Your task to perform on an android device: Set an alarm for 8pm Image 0: 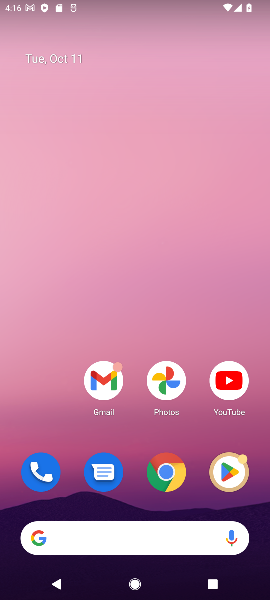
Step 0: drag from (134, 453) to (119, 156)
Your task to perform on an android device: Set an alarm for 8pm Image 1: 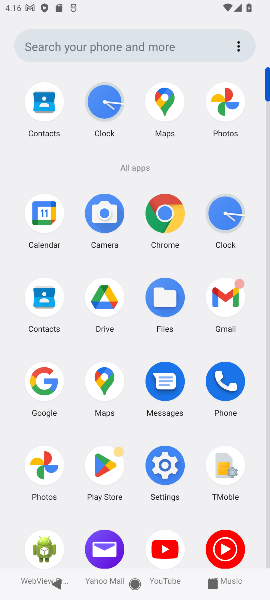
Step 1: click (230, 211)
Your task to perform on an android device: Set an alarm for 8pm Image 2: 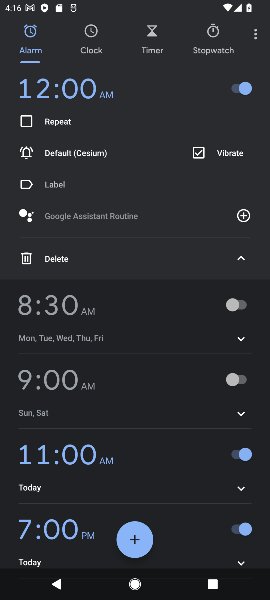
Step 2: click (141, 540)
Your task to perform on an android device: Set an alarm for 8pm Image 3: 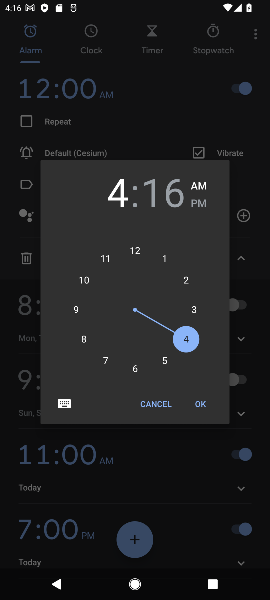
Step 3: click (88, 339)
Your task to perform on an android device: Set an alarm for 8pm Image 4: 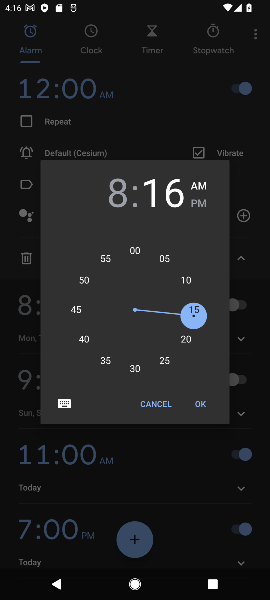
Step 4: click (132, 248)
Your task to perform on an android device: Set an alarm for 8pm Image 5: 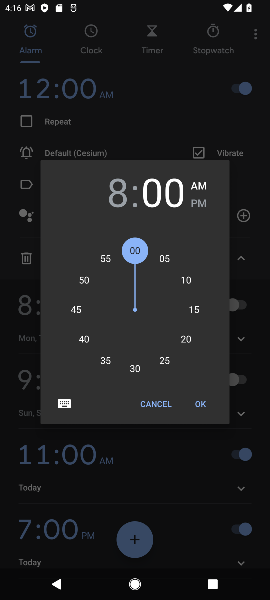
Step 5: click (200, 408)
Your task to perform on an android device: Set an alarm for 8pm Image 6: 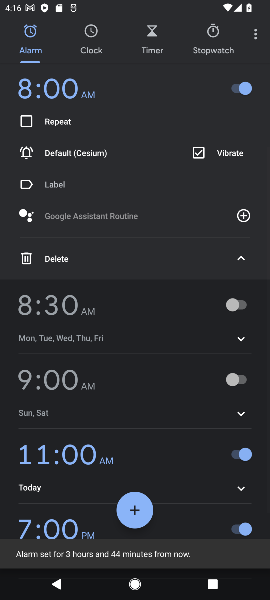
Step 6: task complete